Your task to perform on an android device: Show me popular videos on Youtube Image 0: 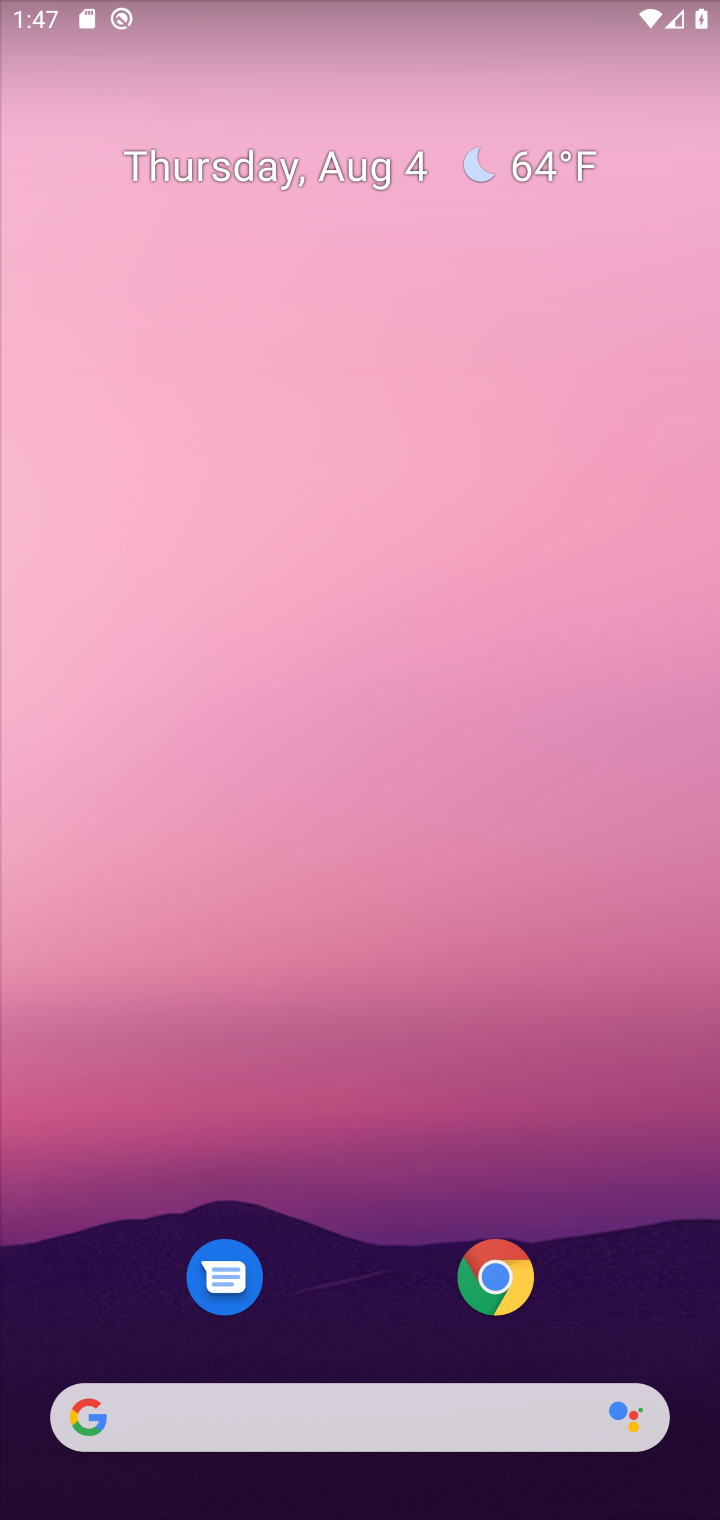
Step 0: drag from (361, 1294) to (382, 589)
Your task to perform on an android device: Show me popular videos on Youtube Image 1: 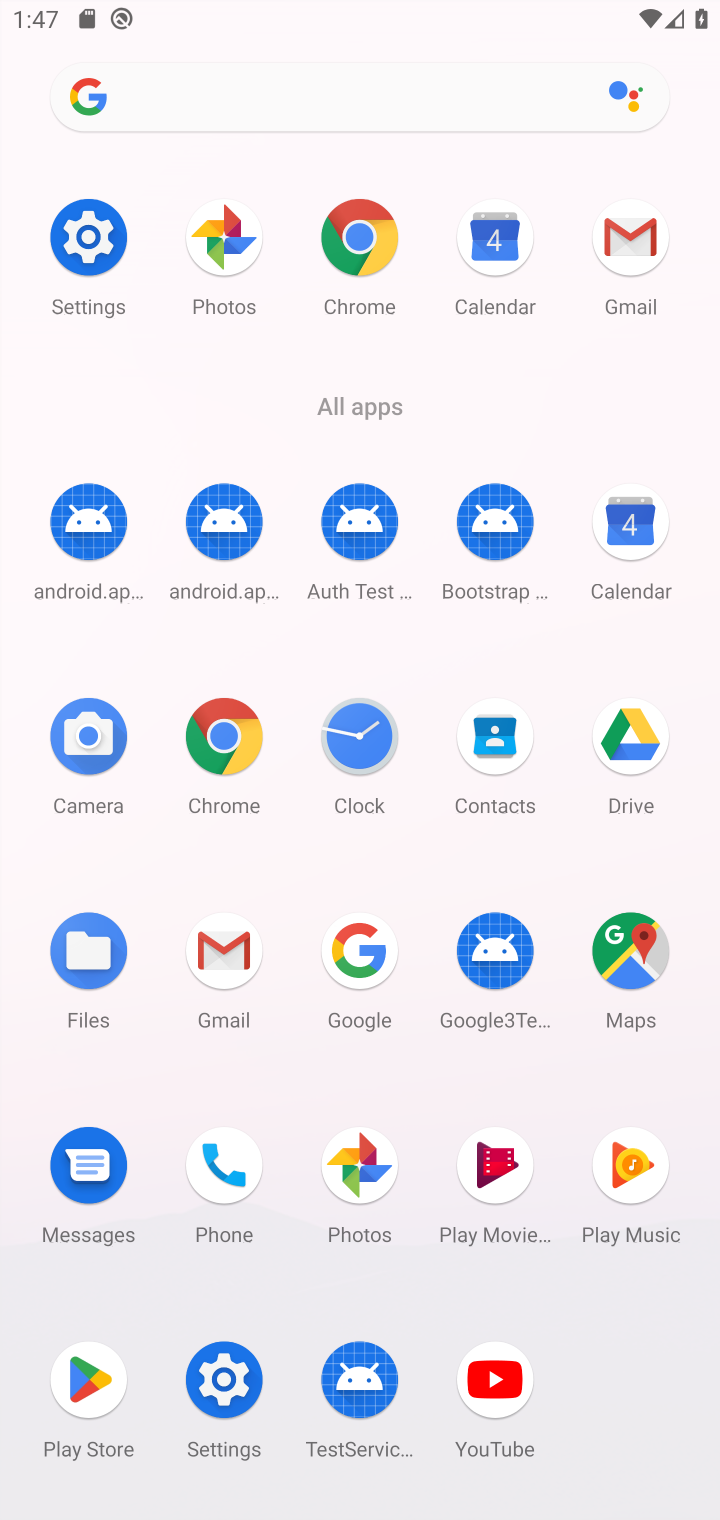
Step 1: click (508, 1355)
Your task to perform on an android device: Show me popular videos on Youtube Image 2: 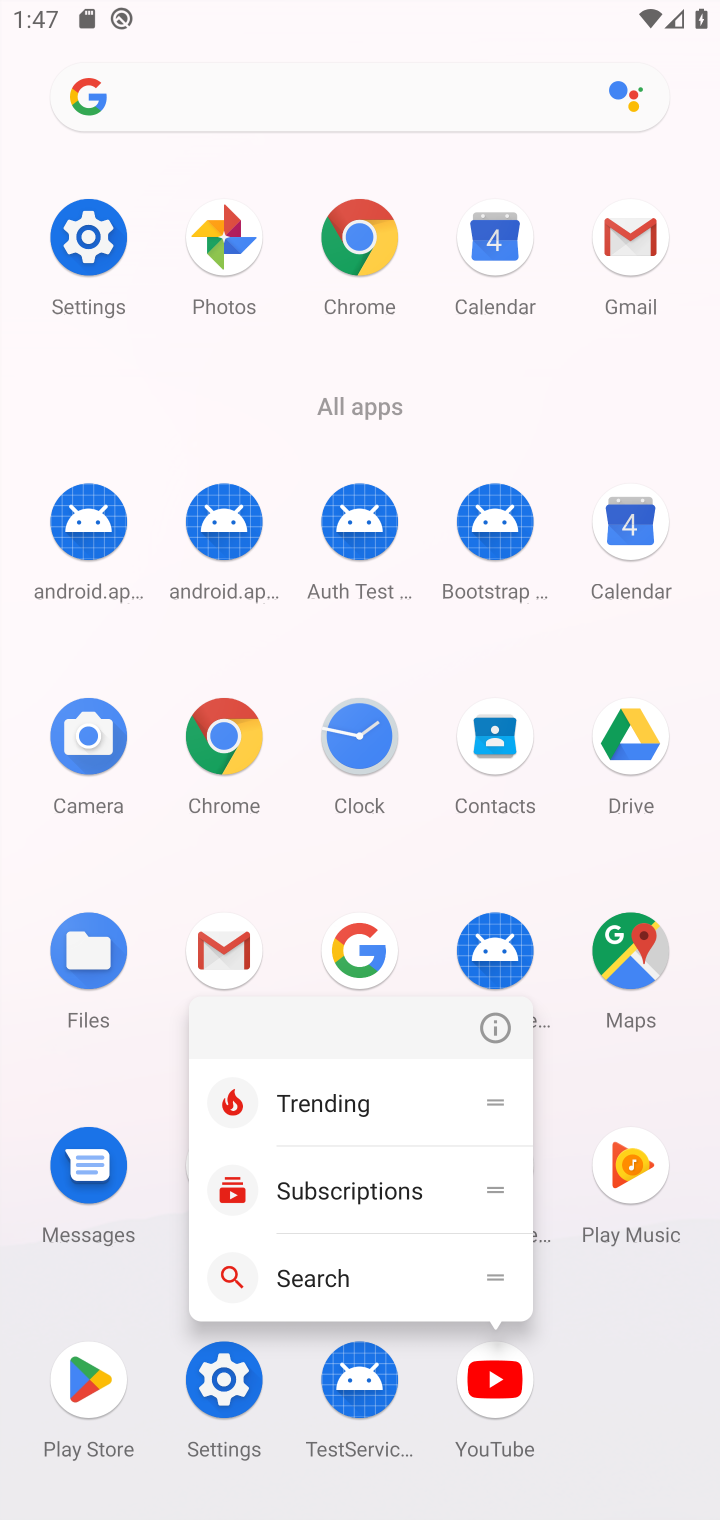
Step 2: click (491, 1377)
Your task to perform on an android device: Show me popular videos on Youtube Image 3: 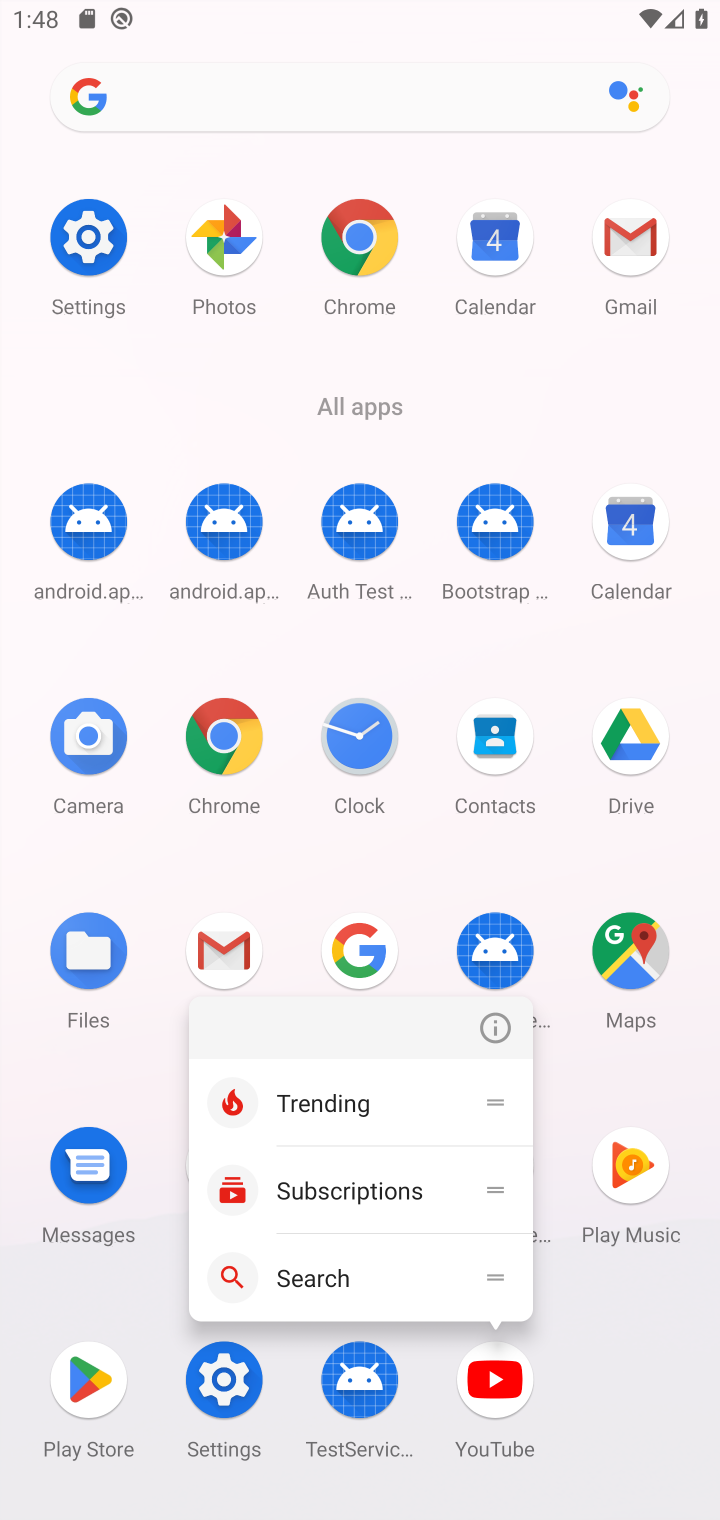
Step 3: click (491, 1377)
Your task to perform on an android device: Show me popular videos on Youtube Image 4: 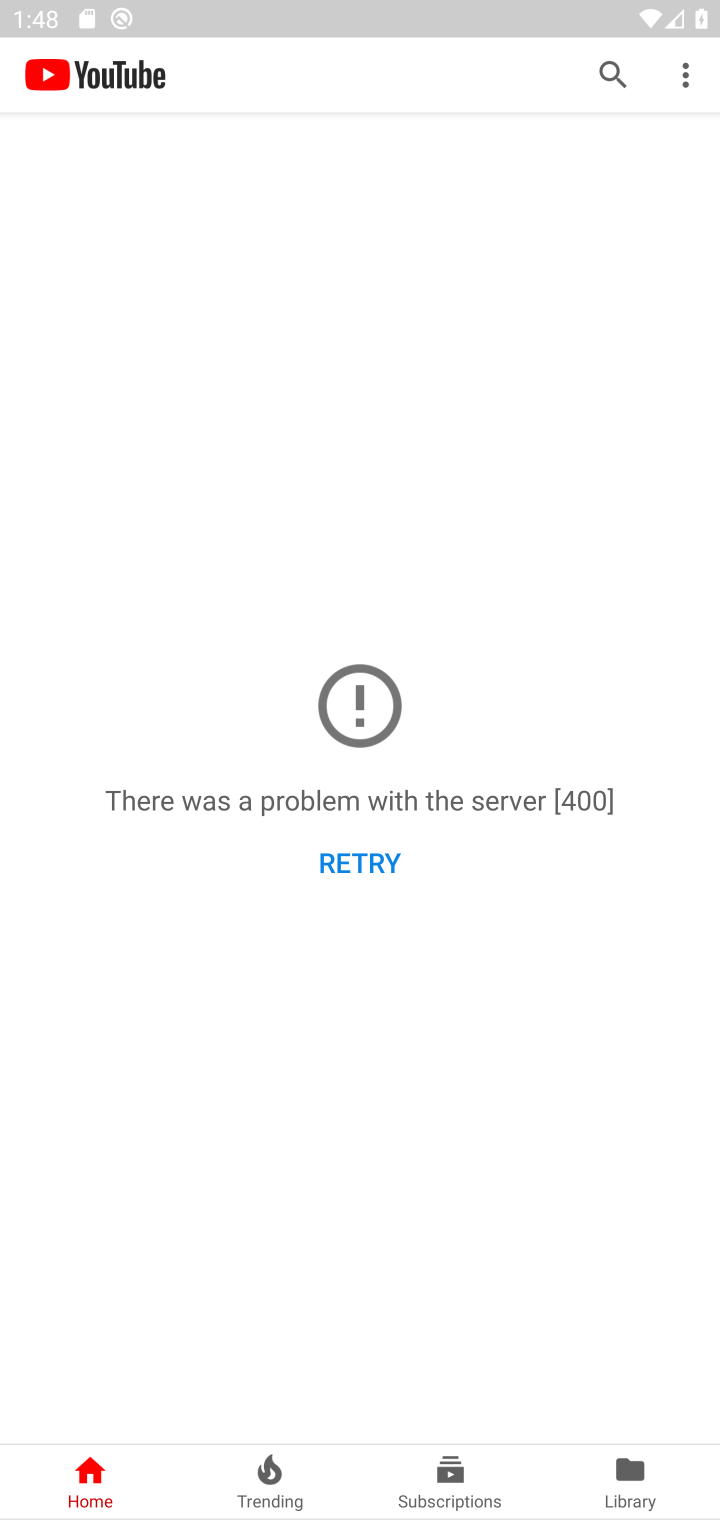
Step 4: task complete